Your task to perform on an android device: search for starred emails in the gmail app Image 0: 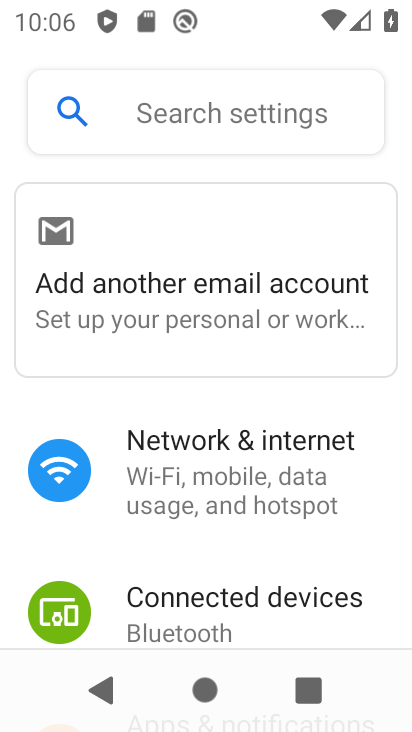
Step 0: press home button
Your task to perform on an android device: search for starred emails in the gmail app Image 1: 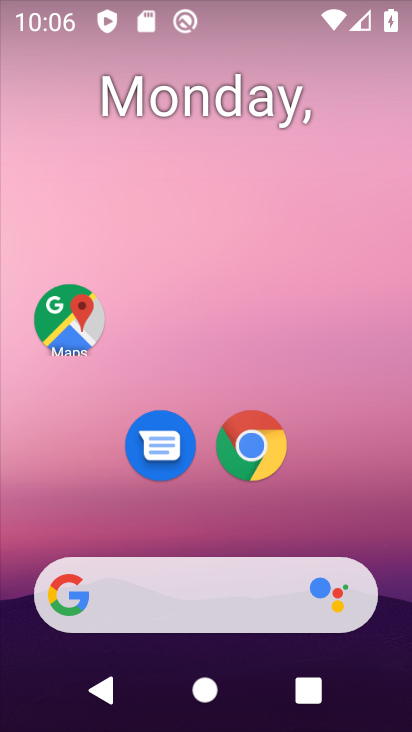
Step 1: drag from (265, 481) to (340, 189)
Your task to perform on an android device: search for starred emails in the gmail app Image 2: 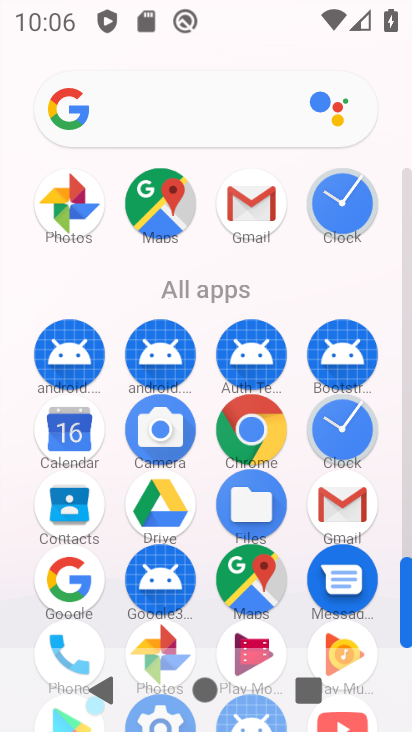
Step 2: click (266, 191)
Your task to perform on an android device: search for starred emails in the gmail app Image 3: 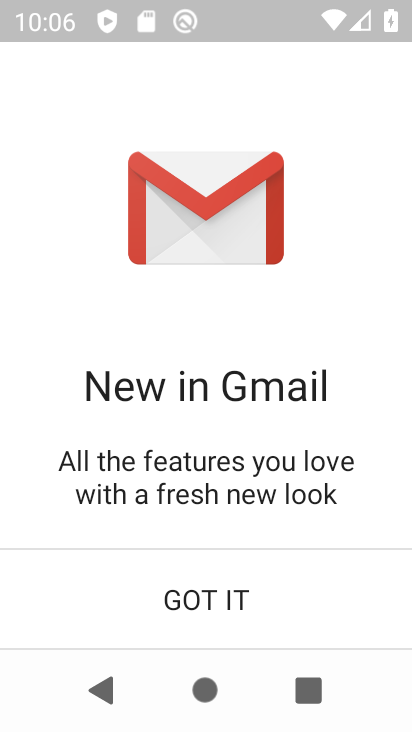
Step 3: click (199, 586)
Your task to perform on an android device: search for starred emails in the gmail app Image 4: 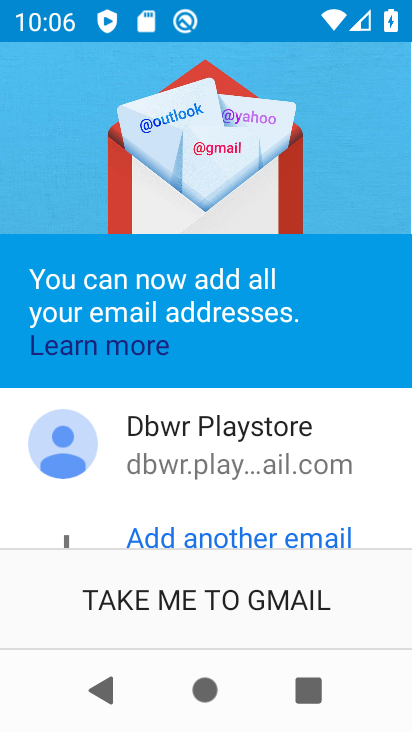
Step 4: click (180, 591)
Your task to perform on an android device: search for starred emails in the gmail app Image 5: 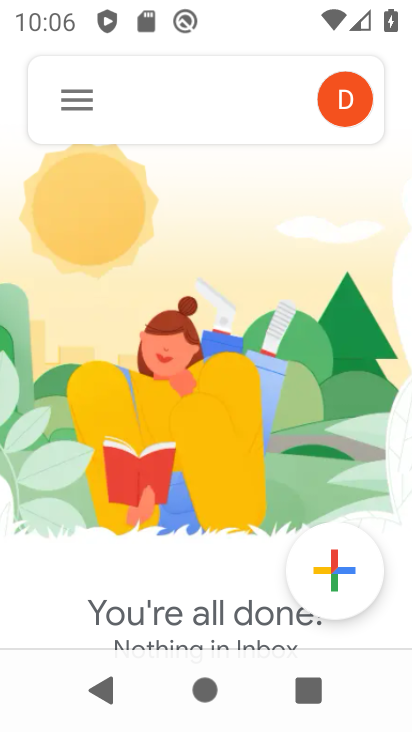
Step 5: click (75, 120)
Your task to perform on an android device: search for starred emails in the gmail app Image 6: 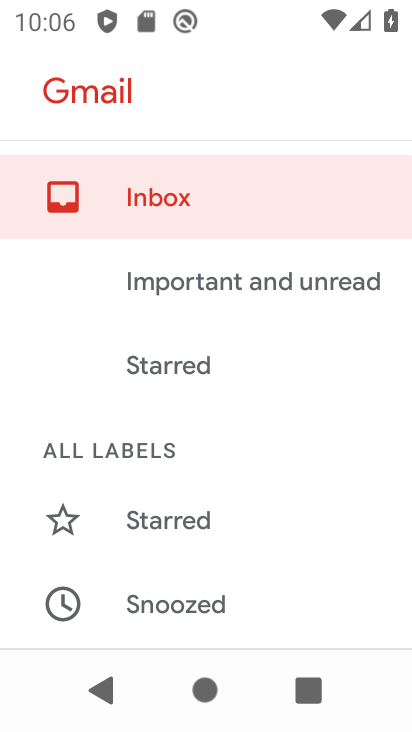
Step 6: click (190, 522)
Your task to perform on an android device: search for starred emails in the gmail app Image 7: 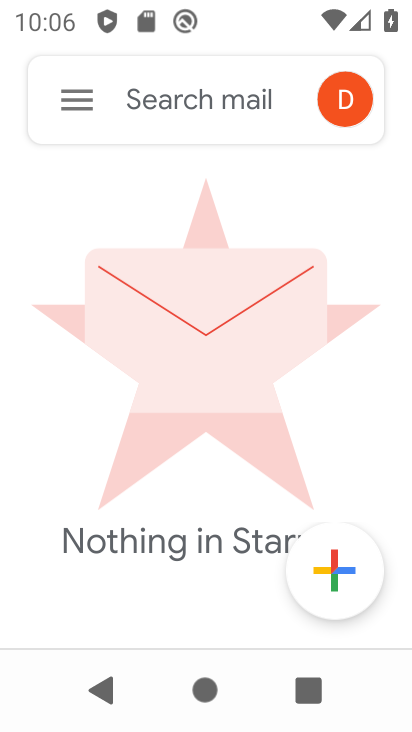
Step 7: task complete